Your task to perform on an android device: change keyboard looks Image 0: 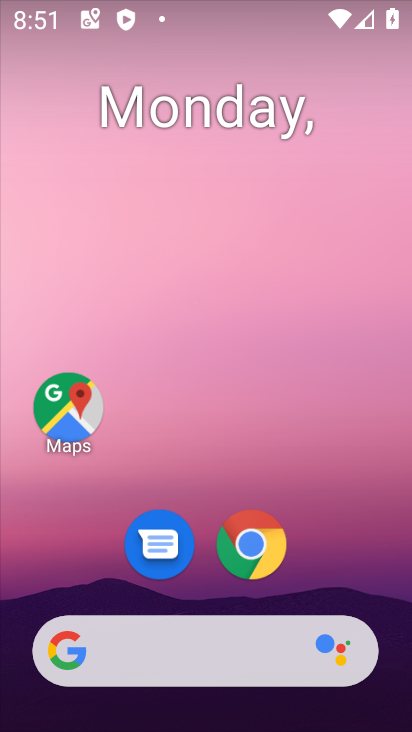
Step 0: drag from (295, 466) to (187, 36)
Your task to perform on an android device: change keyboard looks Image 1: 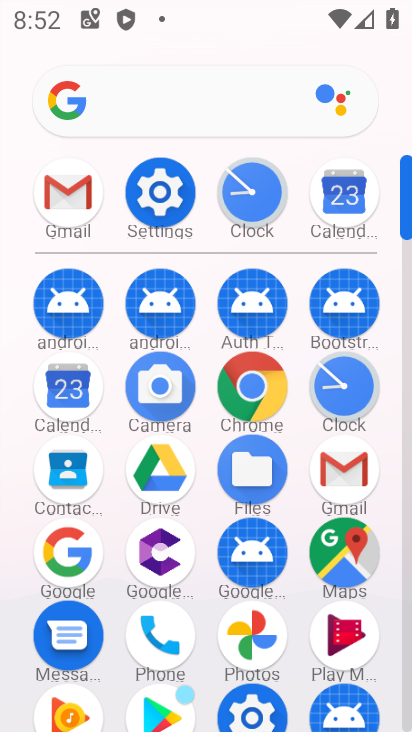
Step 1: click (158, 194)
Your task to perform on an android device: change keyboard looks Image 2: 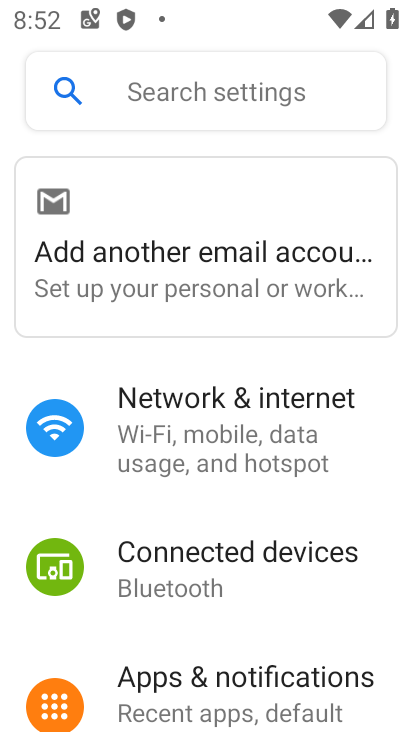
Step 2: drag from (279, 604) to (250, 121)
Your task to perform on an android device: change keyboard looks Image 3: 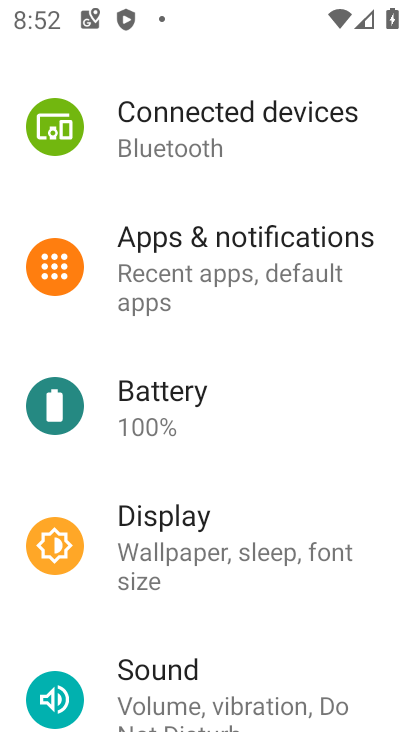
Step 3: drag from (253, 554) to (228, 244)
Your task to perform on an android device: change keyboard looks Image 4: 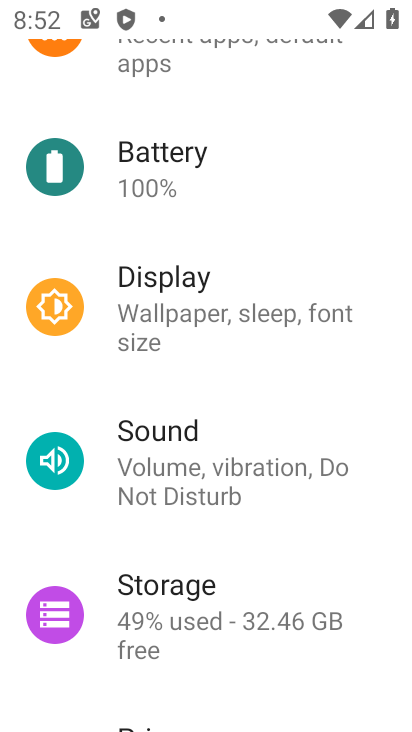
Step 4: drag from (276, 519) to (252, 140)
Your task to perform on an android device: change keyboard looks Image 5: 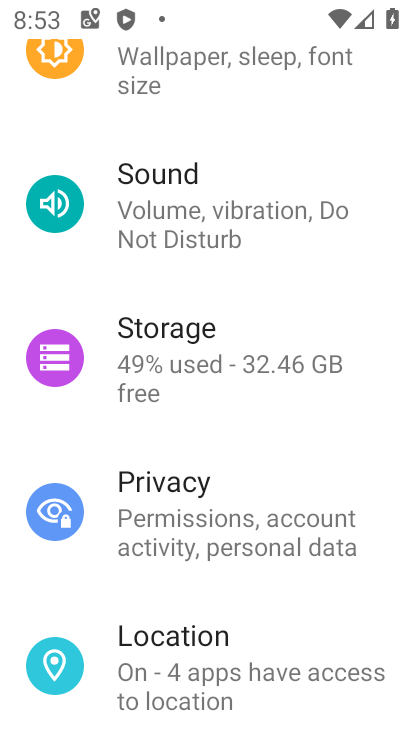
Step 5: drag from (258, 600) to (239, 207)
Your task to perform on an android device: change keyboard looks Image 6: 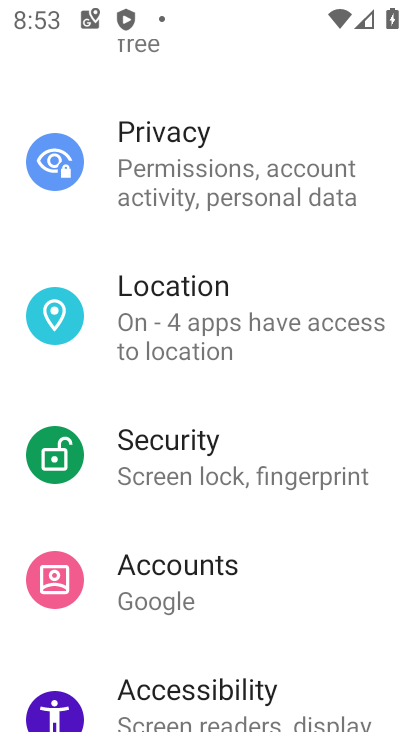
Step 6: drag from (259, 514) to (270, 146)
Your task to perform on an android device: change keyboard looks Image 7: 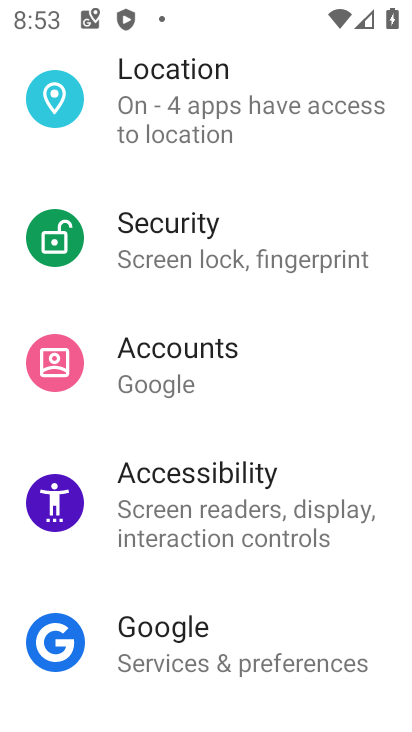
Step 7: drag from (285, 574) to (264, 94)
Your task to perform on an android device: change keyboard looks Image 8: 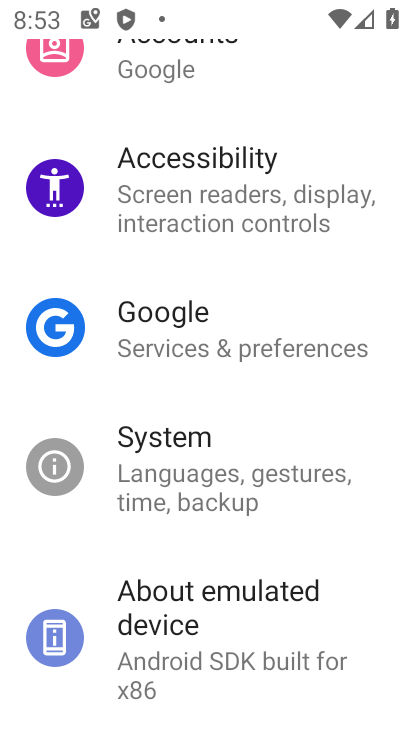
Step 8: click (191, 456)
Your task to perform on an android device: change keyboard looks Image 9: 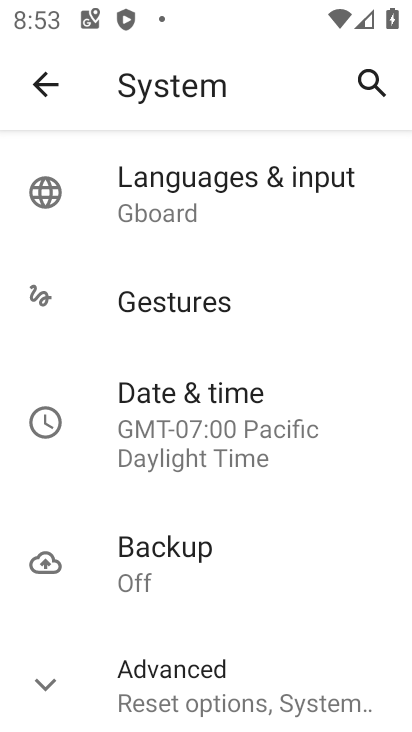
Step 9: click (163, 177)
Your task to perform on an android device: change keyboard looks Image 10: 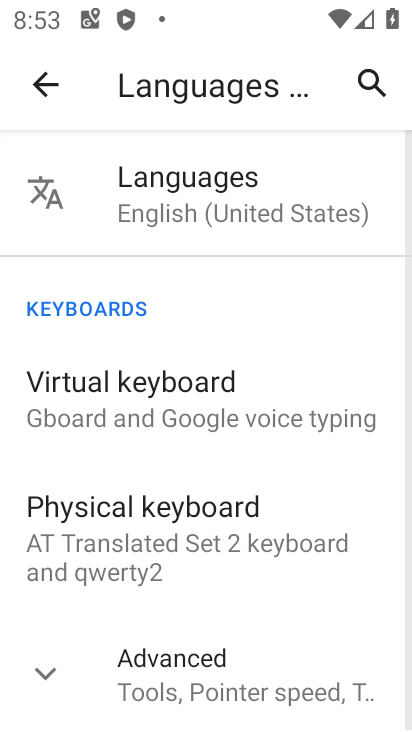
Step 10: click (129, 373)
Your task to perform on an android device: change keyboard looks Image 11: 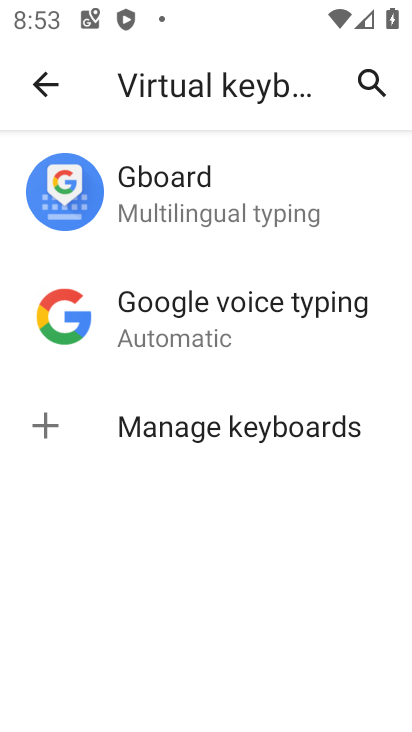
Step 11: click (168, 188)
Your task to perform on an android device: change keyboard looks Image 12: 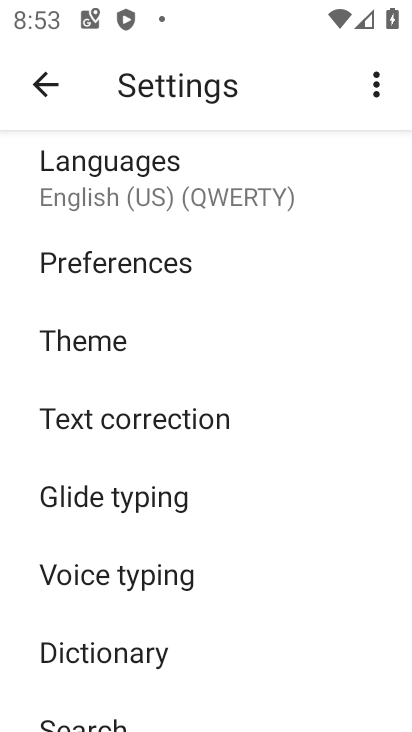
Step 12: click (82, 341)
Your task to perform on an android device: change keyboard looks Image 13: 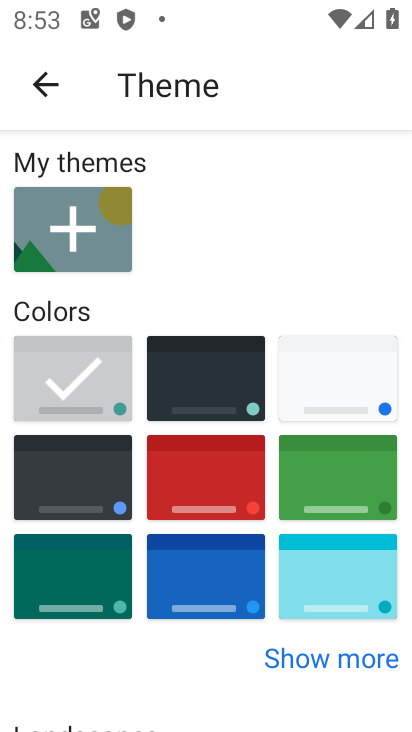
Step 13: click (220, 392)
Your task to perform on an android device: change keyboard looks Image 14: 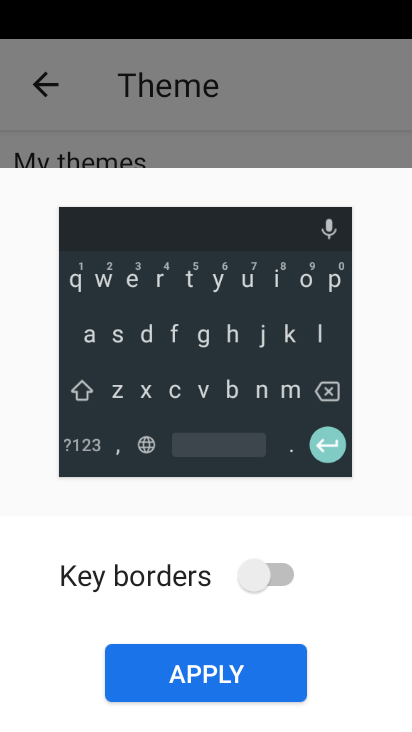
Step 14: click (209, 665)
Your task to perform on an android device: change keyboard looks Image 15: 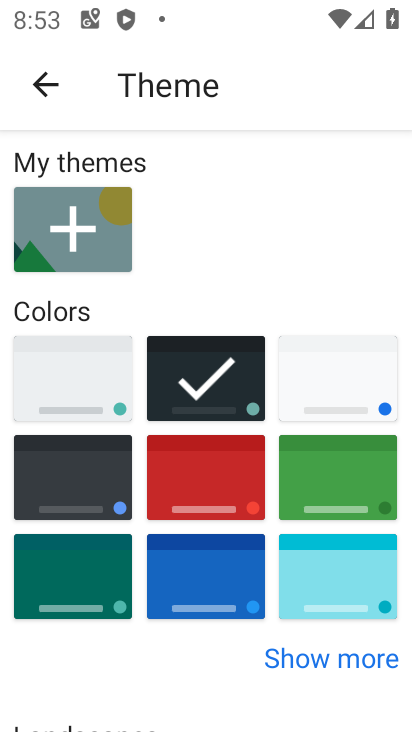
Step 15: task complete